Your task to perform on an android device: see creations saved in the google photos Image 0: 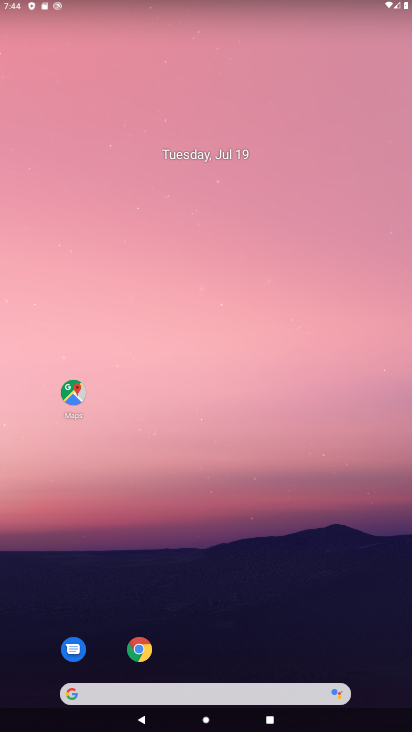
Step 0: drag from (228, 655) to (182, 20)
Your task to perform on an android device: see creations saved in the google photos Image 1: 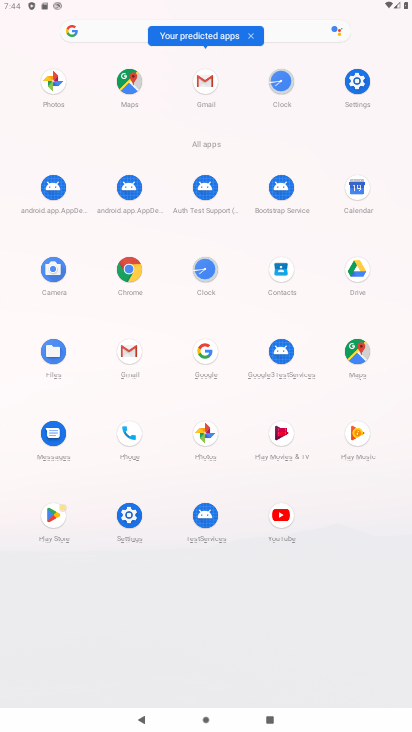
Step 1: click (211, 454)
Your task to perform on an android device: see creations saved in the google photos Image 2: 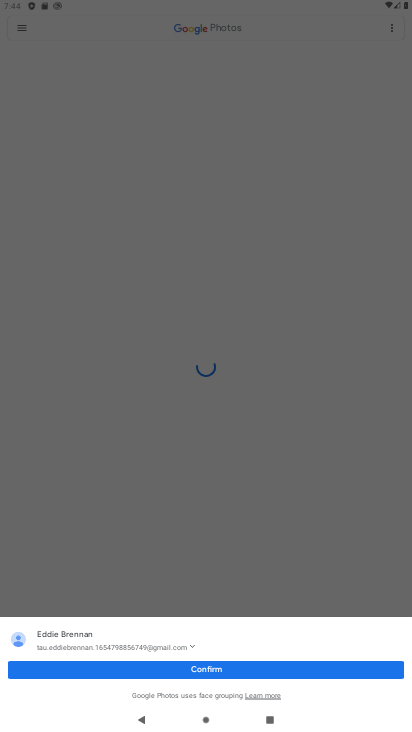
Step 2: click (115, 28)
Your task to perform on an android device: see creations saved in the google photos Image 3: 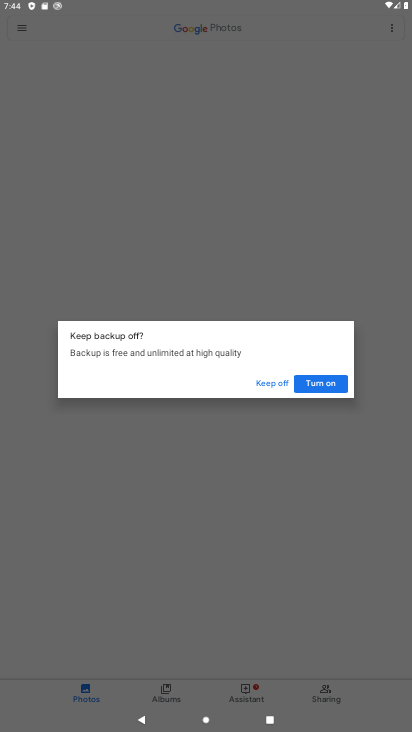
Step 3: click (218, 675)
Your task to perform on an android device: see creations saved in the google photos Image 4: 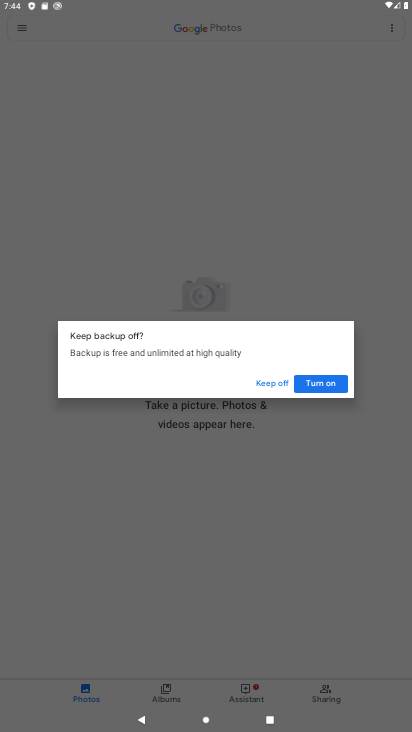
Step 4: click (305, 380)
Your task to perform on an android device: see creations saved in the google photos Image 5: 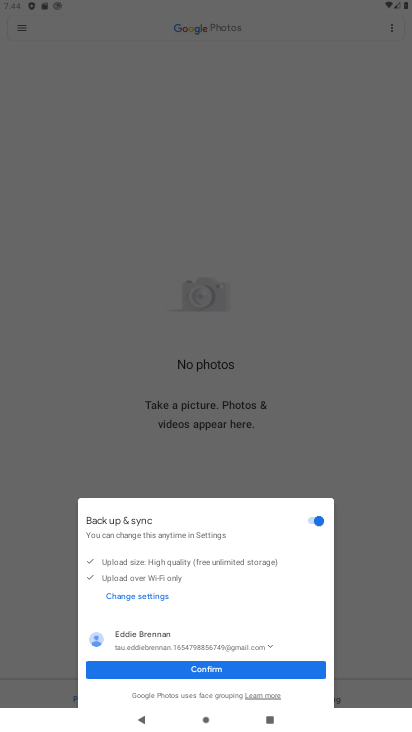
Step 5: click (237, 668)
Your task to perform on an android device: see creations saved in the google photos Image 6: 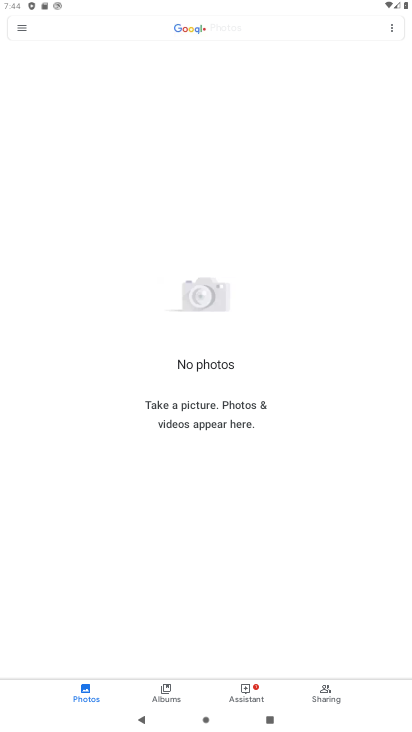
Step 6: click (177, 33)
Your task to perform on an android device: see creations saved in the google photos Image 7: 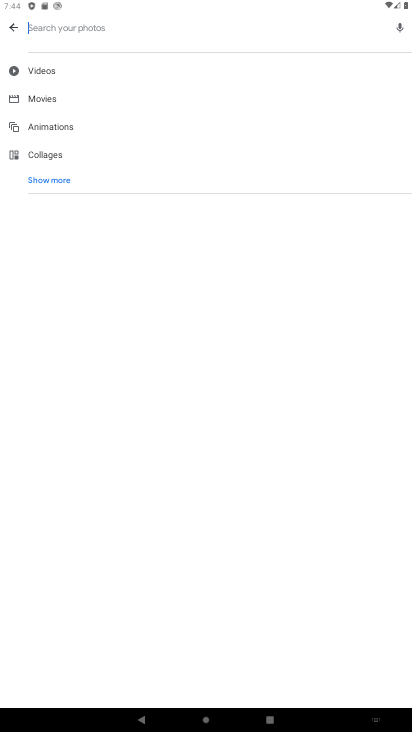
Step 7: click (53, 173)
Your task to perform on an android device: see creations saved in the google photos Image 8: 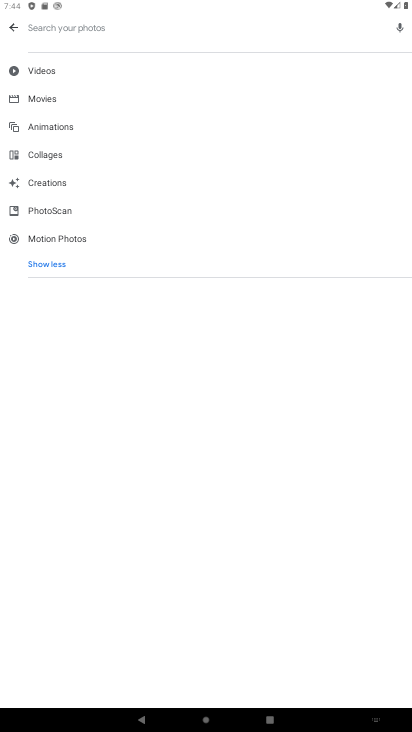
Step 8: click (53, 178)
Your task to perform on an android device: see creations saved in the google photos Image 9: 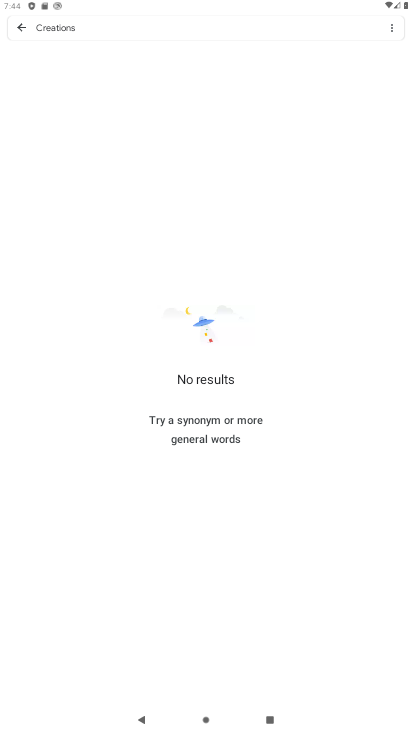
Step 9: task complete